Your task to perform on an android device: Is it going to rain today? Image 0: 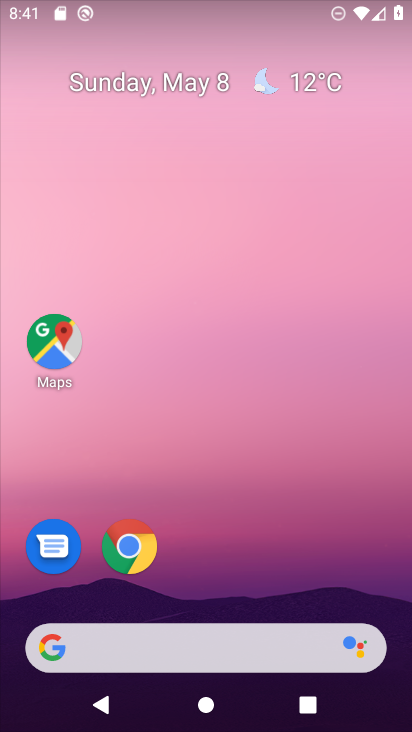
Step 0: click (297, 77)
Your task to perform on an android device: Is it going to rain today? Image 1: 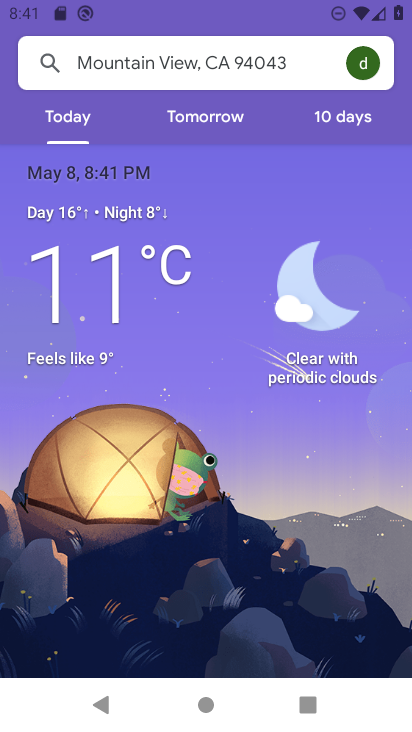
Step 1: task complete